Your task to perform on an android device: View the shopping cart on walmart. Search for "alienware aurora" on walmart, select the first entry, and add it to the cart. Image 0: 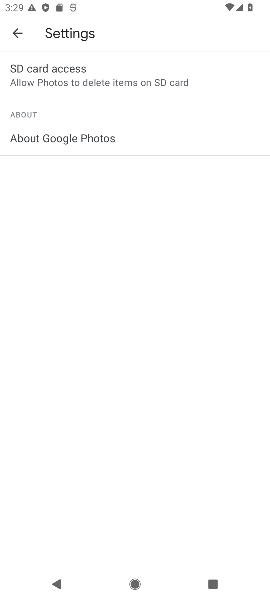
Step 0: press home button
Your task to perform on an android device: View the shopping cart on walmart. Search for "alienware aurora" on walmart, select the first entry, and add it to the cart. Image 1: 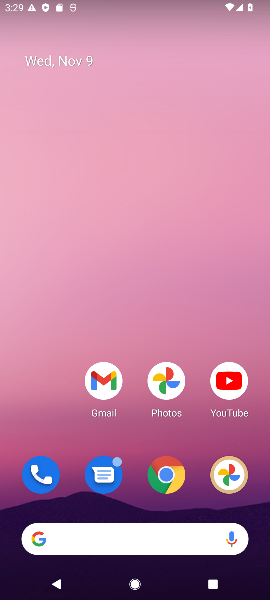
Step 1: drag from (135, 481) to (190, 74)
Your task to perform on an android device: View the shopping cart on walmart. Search for "alienware aurora" on walmart, select the first entry, and add it to the cart. Image 2: 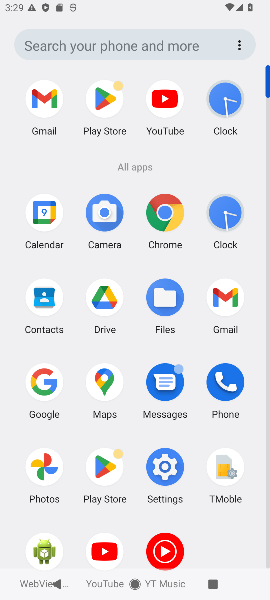
Step 2: click (166, 217)
Your task to perform on an android device: View the shopping cart on walmart. Search for "alienware aurora" on walmart, select the first entry, and add it to the cart. Image 3: 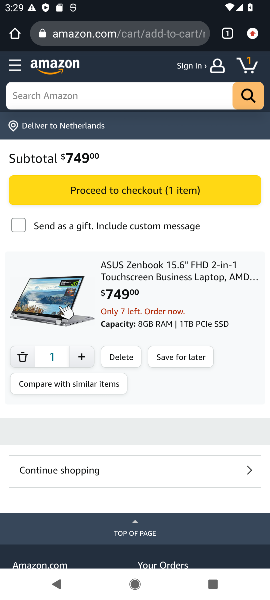
Step 3: click (126, 36)
Your task to perform on an android device: View the shopping cart on walmart. Search for "alienware aurora" on walmart, select the first entry, and add it to the cart. Image 4: 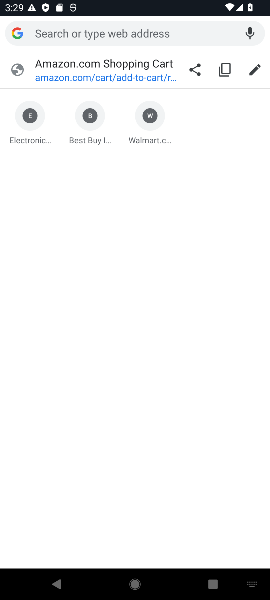
Step 4: type "walmart"
Your task to perform on an android device: View the shopping cart on walmart. Search for "alienware aurora" on walmart, select the first entry, and add it to the cart. Image 5: 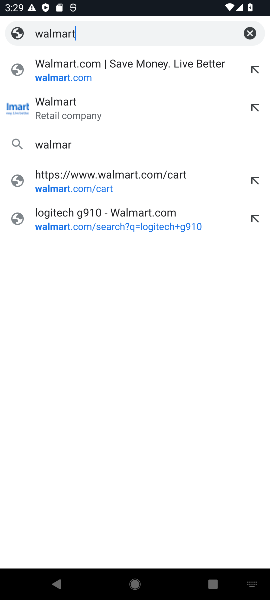
Step 5: press enter
Your task to perform on an android device: View the shopping cart on walmart. Search for "alienware aurora" on walmart, select the first entry, and add it to the cart. Image 6: 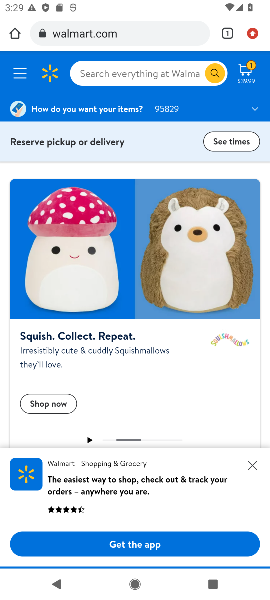
Step 6: click (117, 75)
Your task to perform on an android device: View the shopping cart on walmart. Search for "alienware aurora" on walmart, select the first entry, and add it to the cart. Image 7: 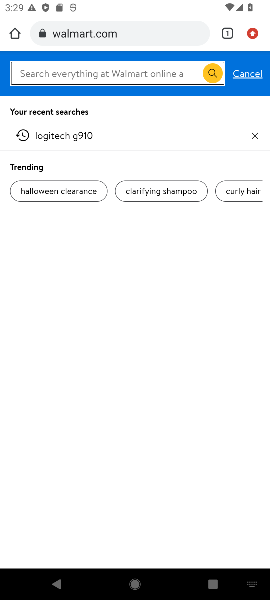
Step 7: type "alienware aurora"
Your task to perform on an android device: View the shopping cart on walmart. Search for "alienware aurora" on walmart, select the first entry, and add it to the cart. Image 8: 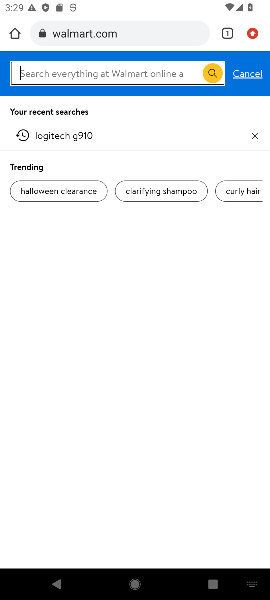
Step 8: press enter
Your task to perform on an android device: View the shopping cart on walmart. Search for "alienware aurora" on walmart, select the first entry, and add it to the cart. Image 9: 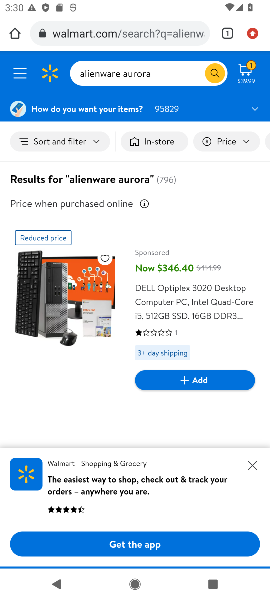
Step 9: click (191, 374)
Your task to perform on an android device: View the shopping cart on walmart. Search for "alienware aurora" on walmart, select the first entry, and add it to the cart. Image 10: 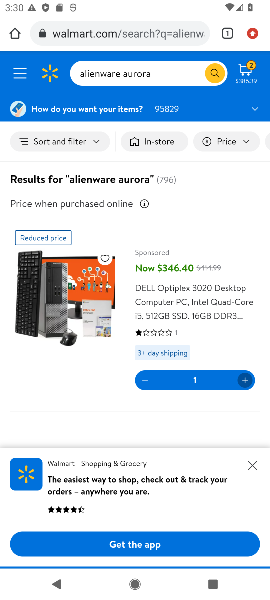
Step 10: click (249, 72)
Your task to perform on an android device: View the shopping cart on walmart. Search for "alienware aurora" on walmart, select the first entry, and add it to the cart. Image 11: 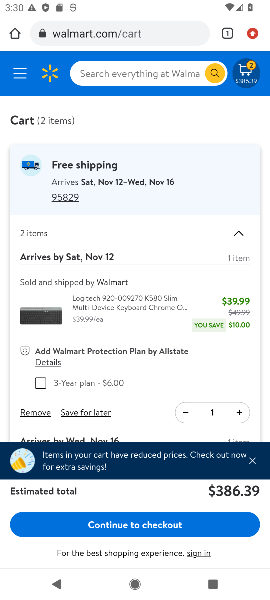
Step 11: click (134, 528)
Your task to perform on an android device: View the shopping cart on walmart. Search for "alienware aurora" on walmart, select the first entry, and add it to the cart. Image 12: 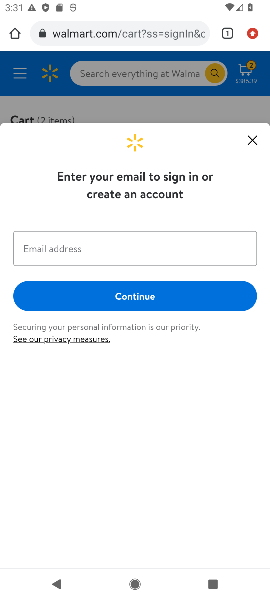
Step 12: task complete